Your task to perform on an android device: Go to accessibility settings Image 0: 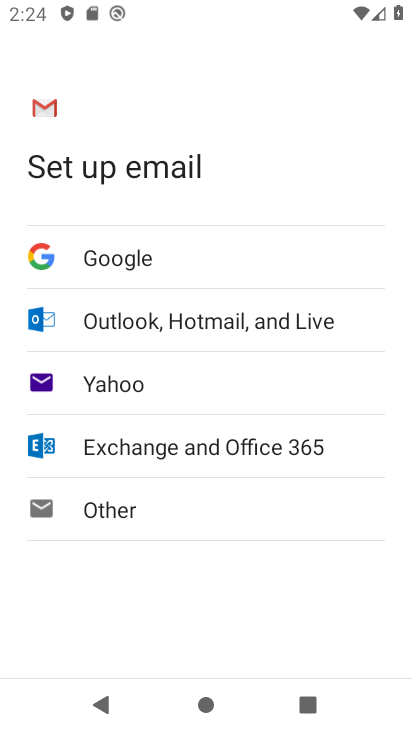
Step 0: press home button
Your task to perform on an android device: Go to accessibility settings Image 1: 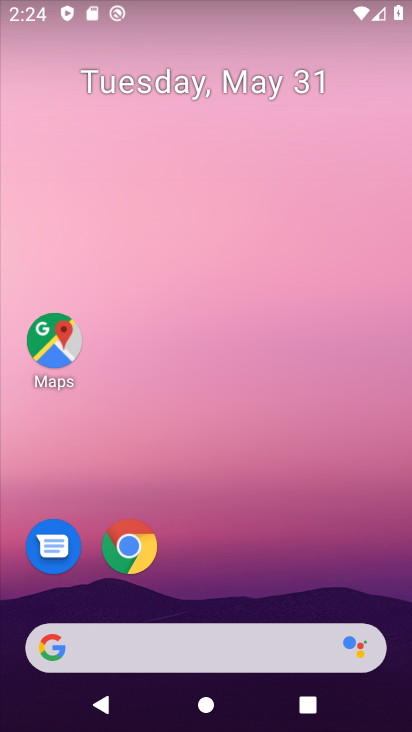
Step 1: drag from (242, 528) to (270, 55)
Your task to perform on an android device: Go to accessibility settings Image 2: 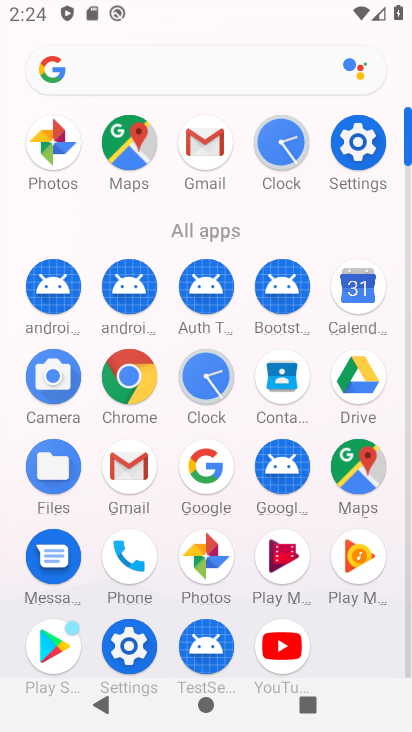
Step 2: click (359, 130)
Your task to perform on an android device: Go to accessibility settings Image 3: 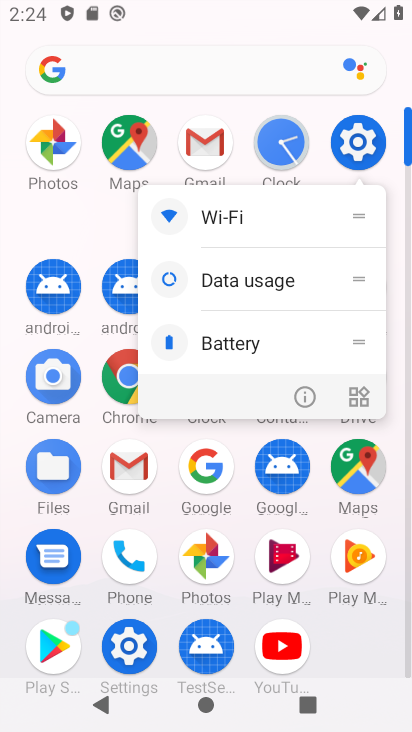
Step 3: click (359, 130)
Your task to perform on an android device: Go to accessibility settings Image 4: 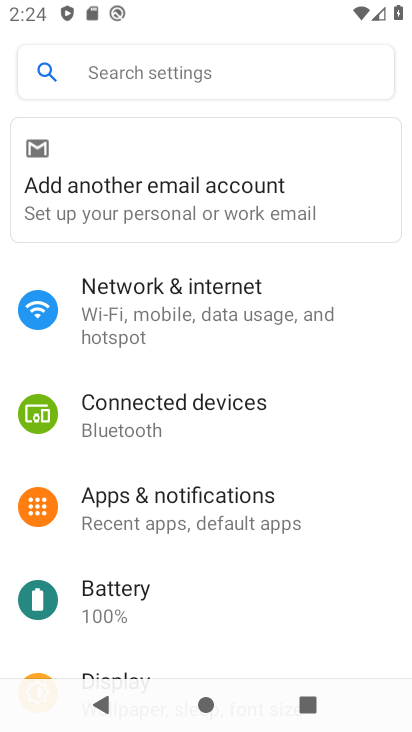
Step 4: drag from (228, 565) to (291, 3)
Your task to perform on an android device: Go to accessibility settings Image 5: 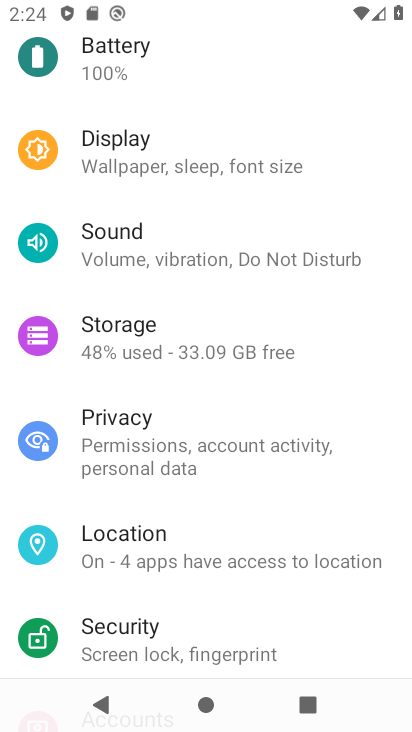
Step 5: drag from (209, 531) to (263, 35)
Your task to perform on an android device: Go to accessibility settings Image 6: 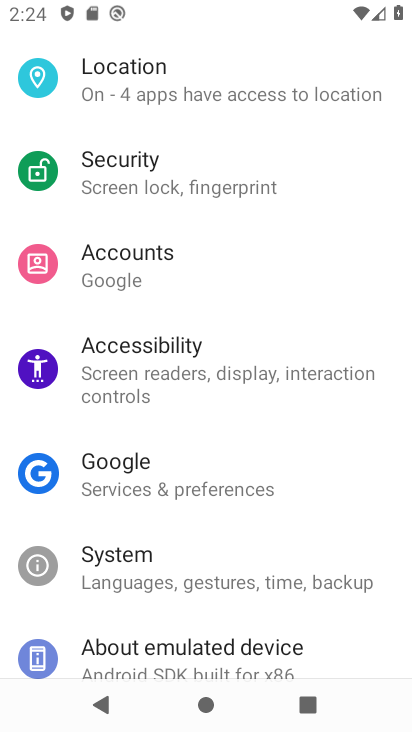
Step 6: click (182, 365)
Your task to perform on an android device: Go to accessibility settings Image 7: 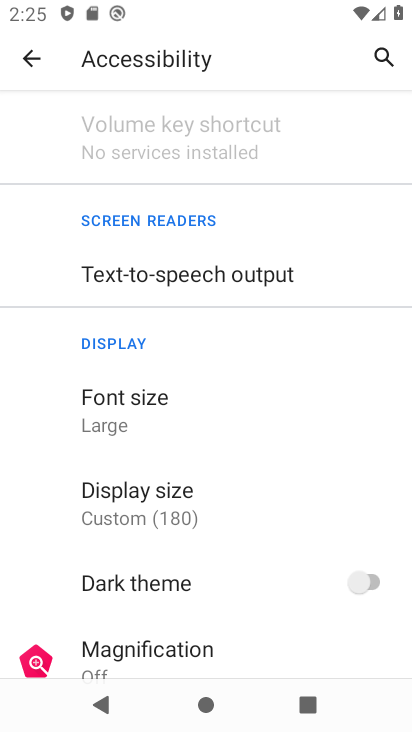
Step 7: task complete